Your task to perform on an android device: Search for the best fantasy books on Goodreads. Image 0: 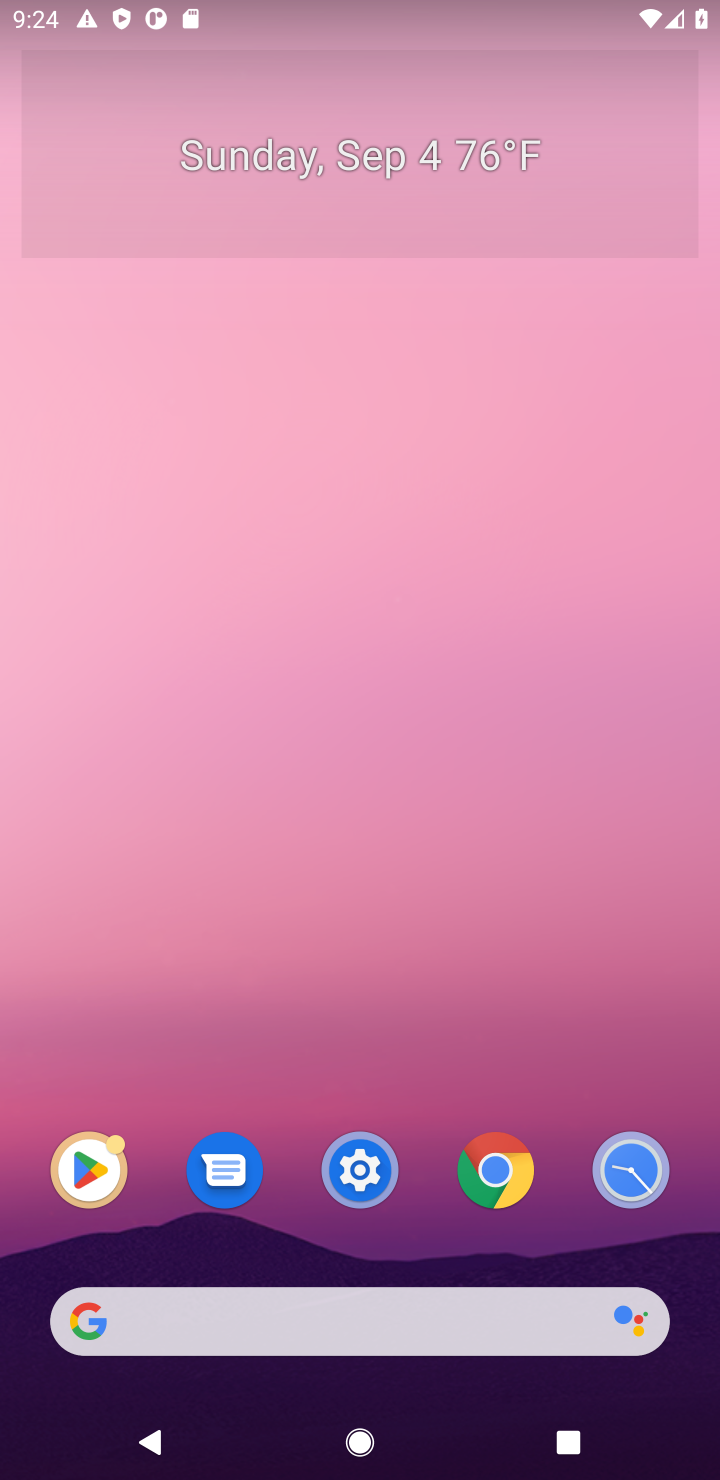
Step 0: click (261, 1326)
Your task to perform on an android device: Search for the best fantasy books on Goodreads. Image 1: 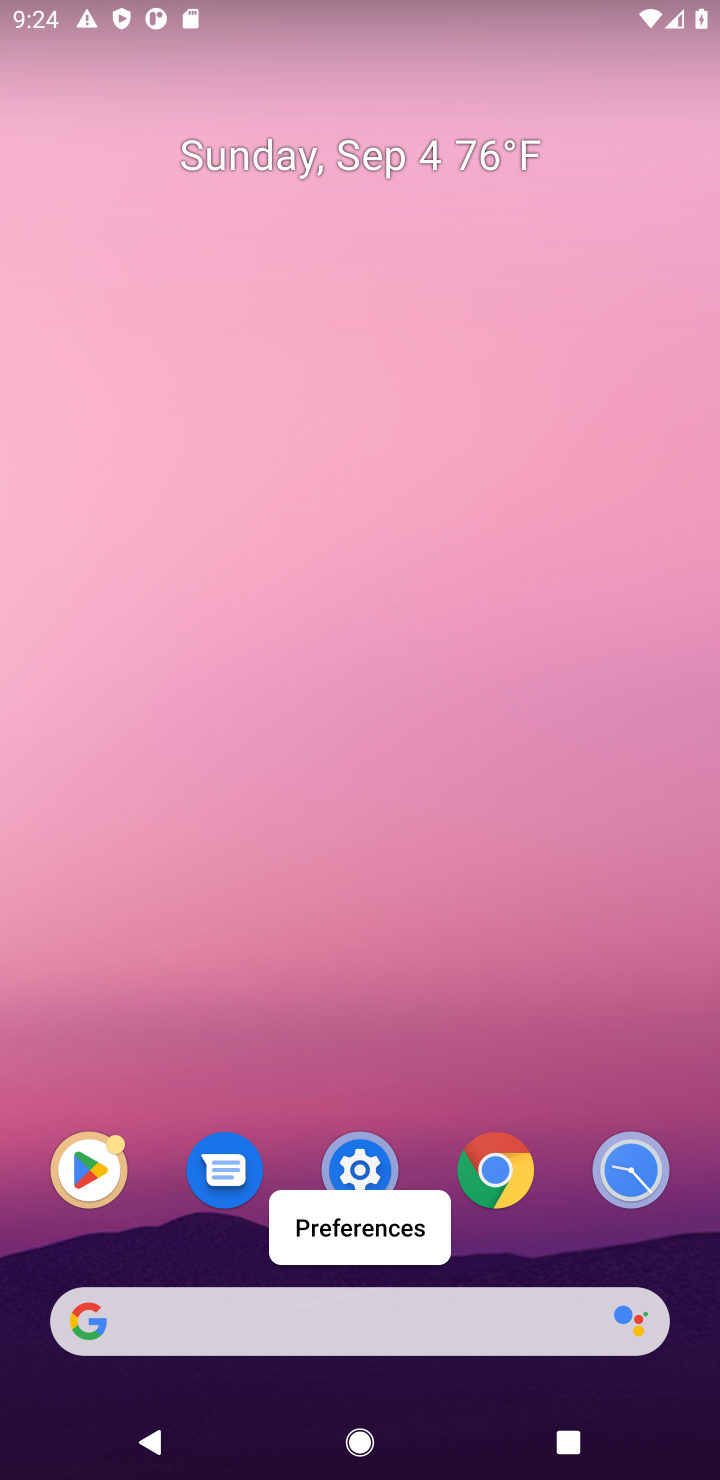
Step 1: click (261, 1326)
Your task to perform on an android device: Search for the best fantasy books on Goodreads. Image 2: 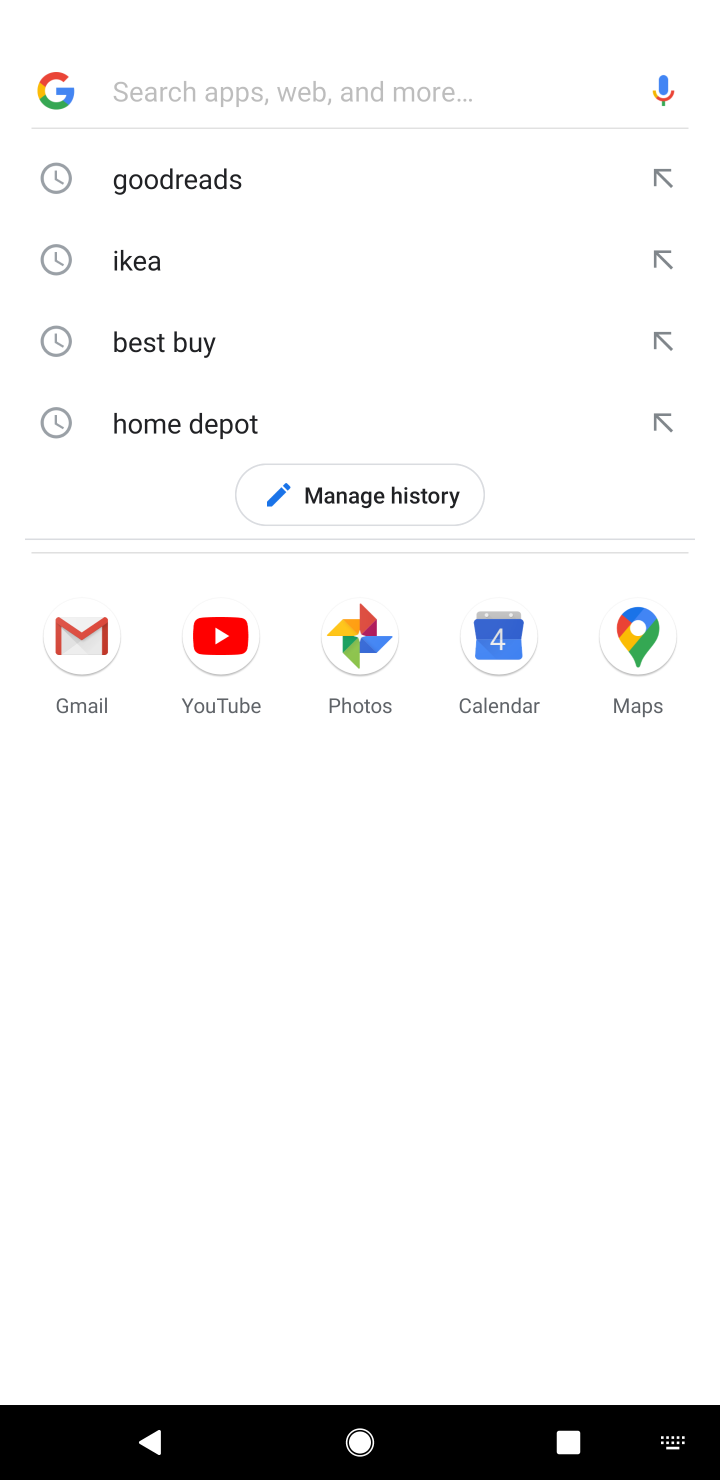
Step 2: click (206, 190)
Your task to perform on an android device: Search for the best fantasy books on Goodreads. Image 3: 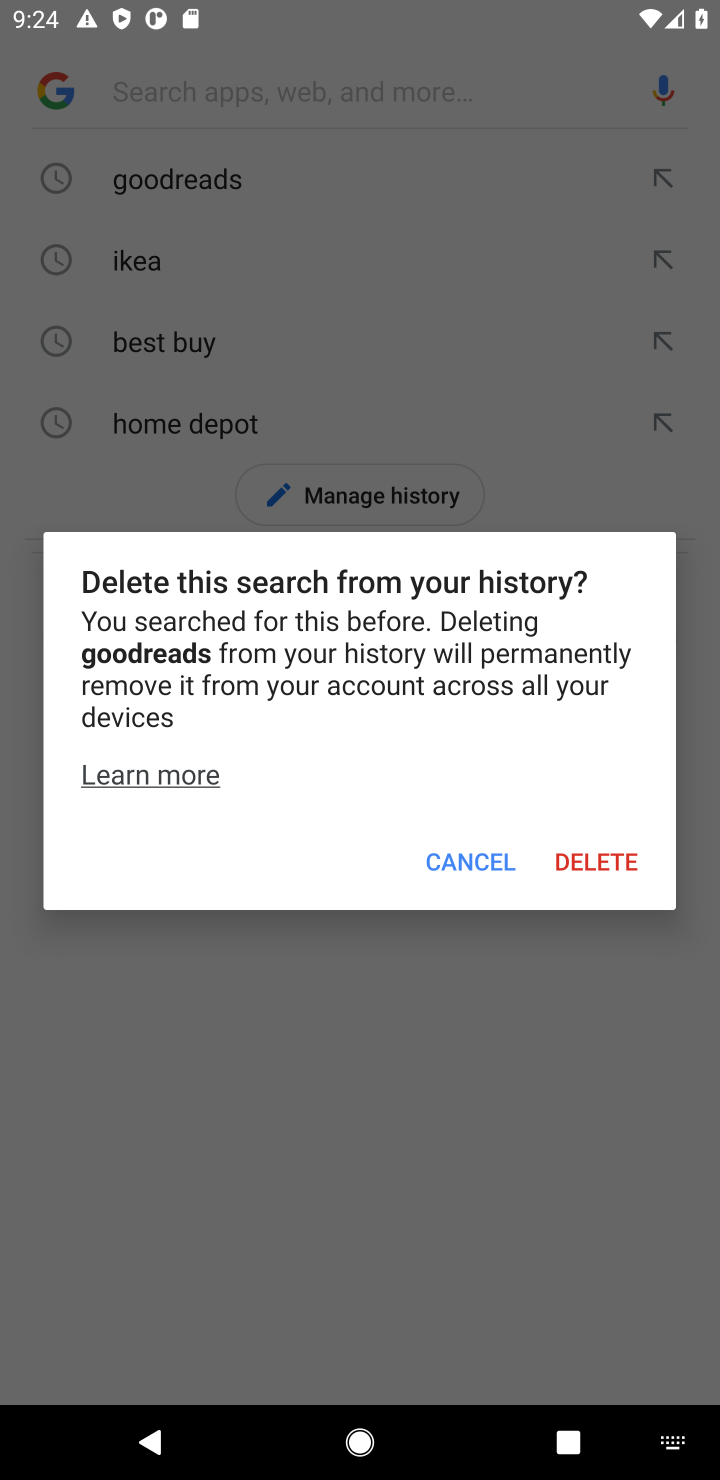
Step 3: click (266, 146)
Your task to perform on an android device: Search for the best fantasy books on Goodreads. Image 4: 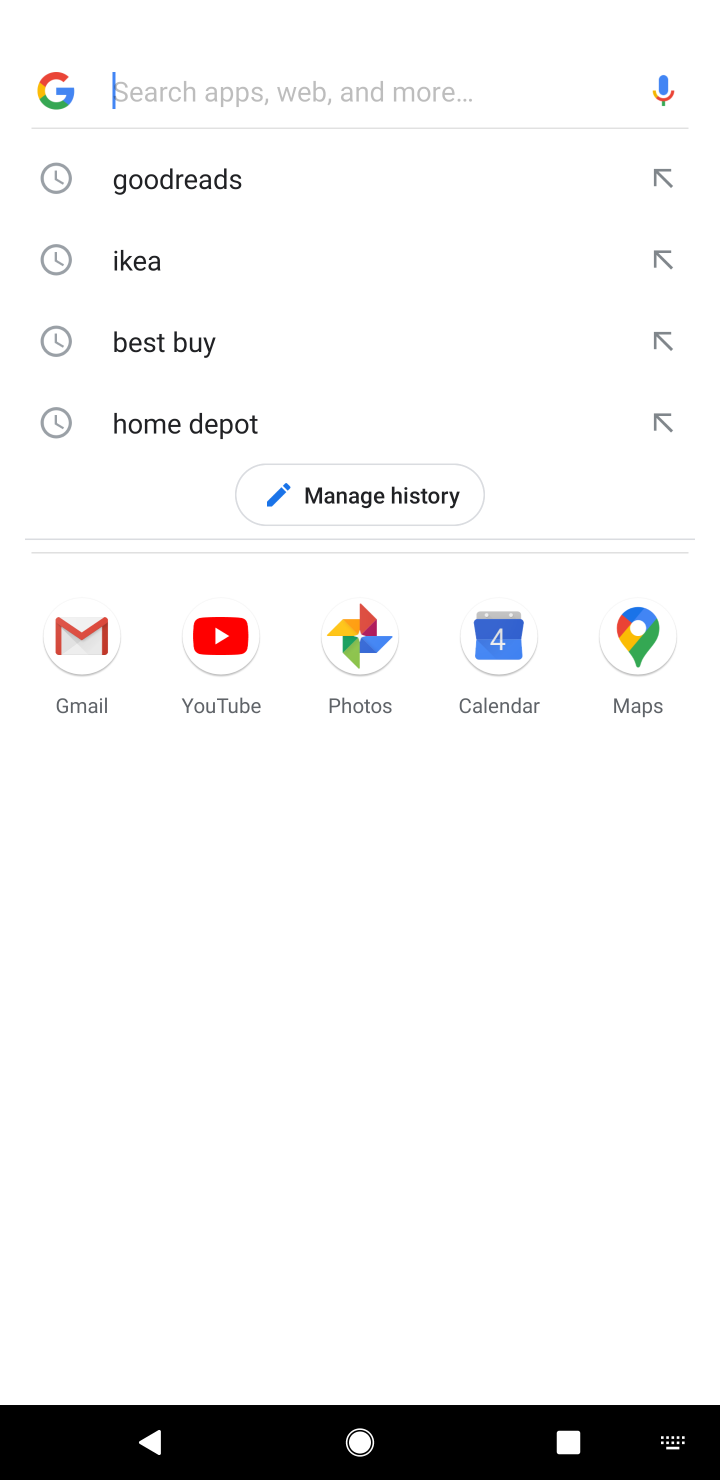
Step 4: click (259, 175)
Your task to perform on an android device: Search for the best fantasy books on Goodreads. Image 5: 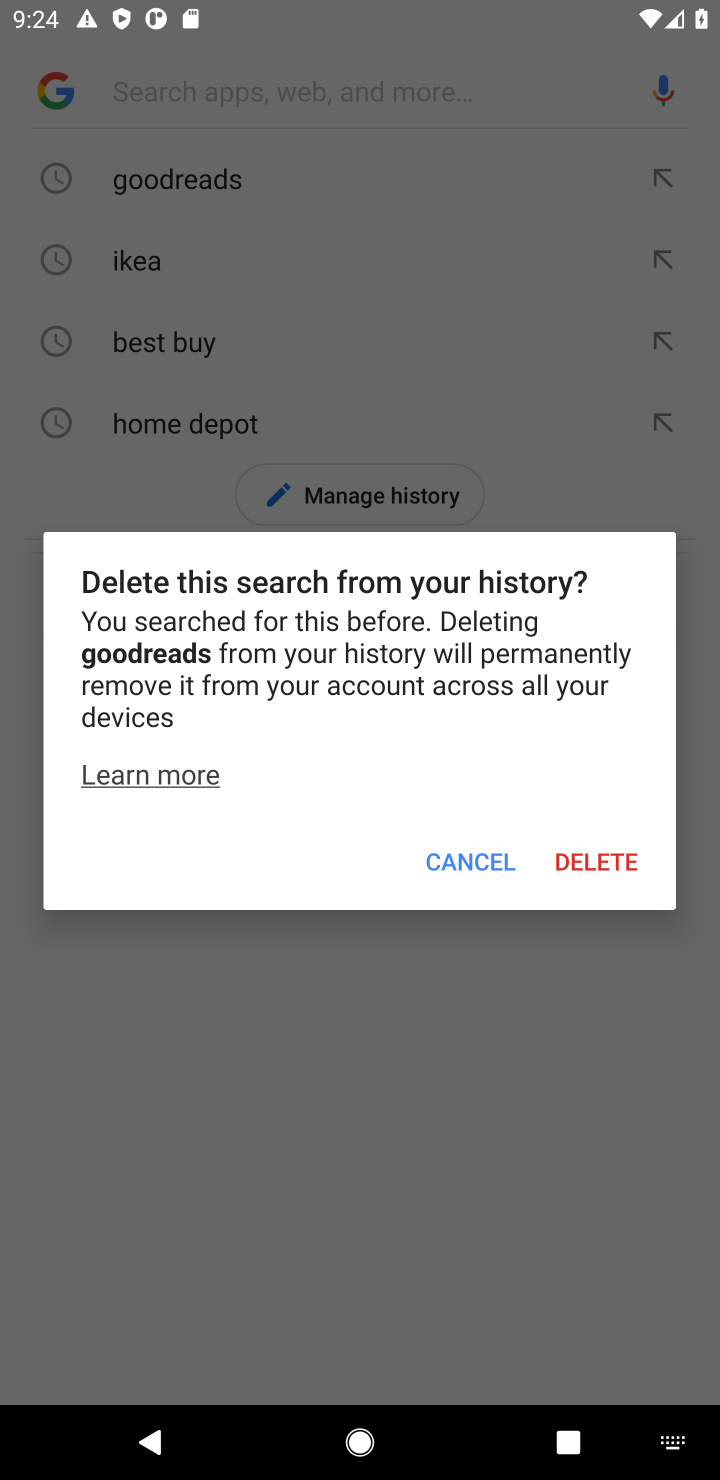
Step 5: click (432, 861)
Your task to perform on an android device: Search for the best fantasy books on Goodreads. Image 6: 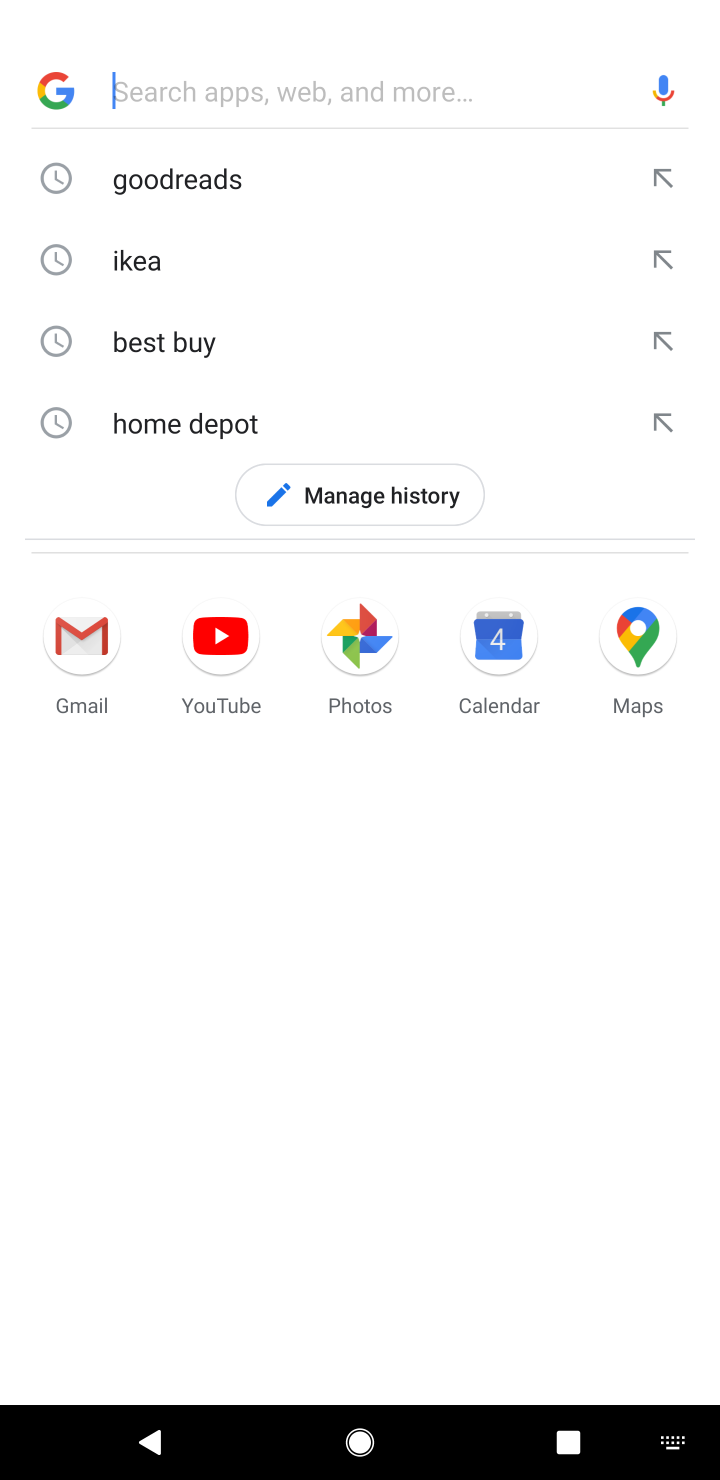
Step 6: click (193, 174)
Your task to perform on an android device: Search for the best fantasy books on Goodreads. Image 7: 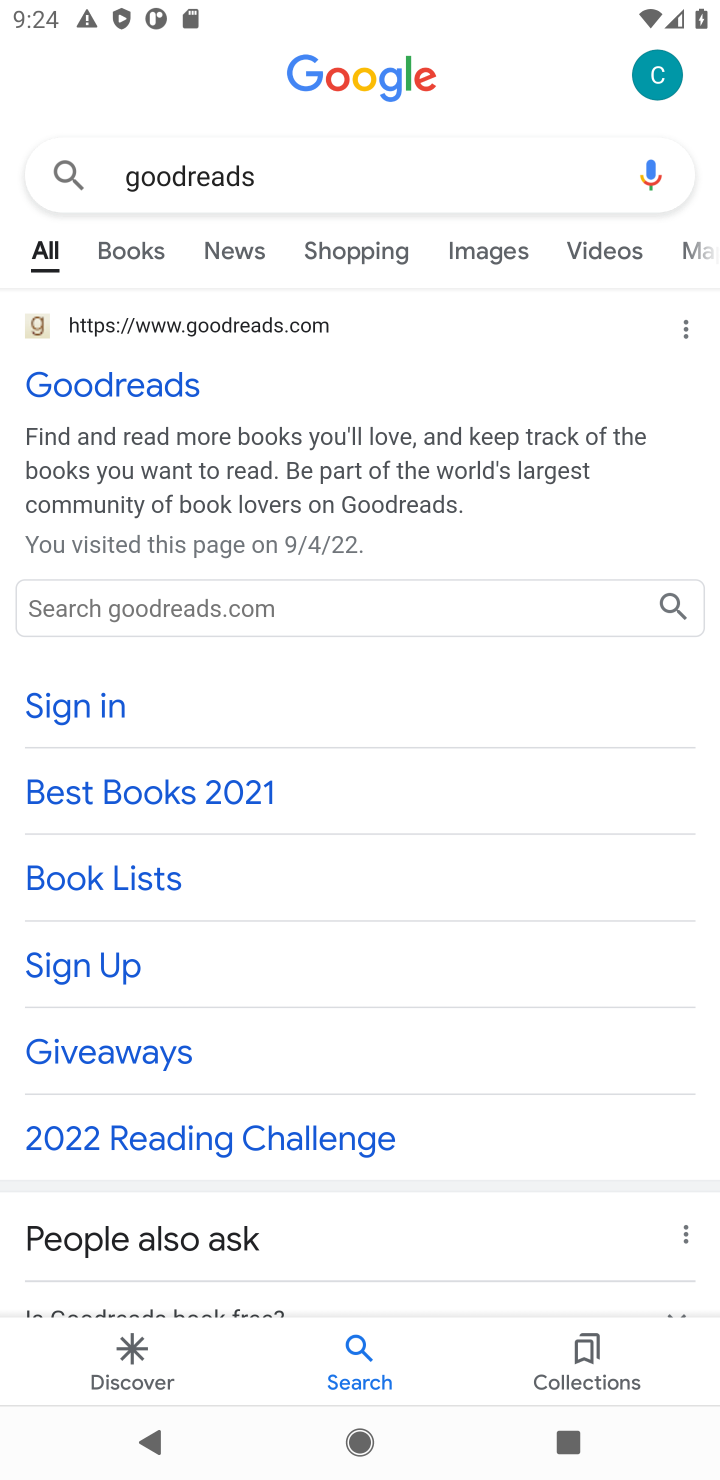
Step 7: click (182, 400)
Your task to perform on an android device: Search for the best fantasy books on Goodreads. Image 8: 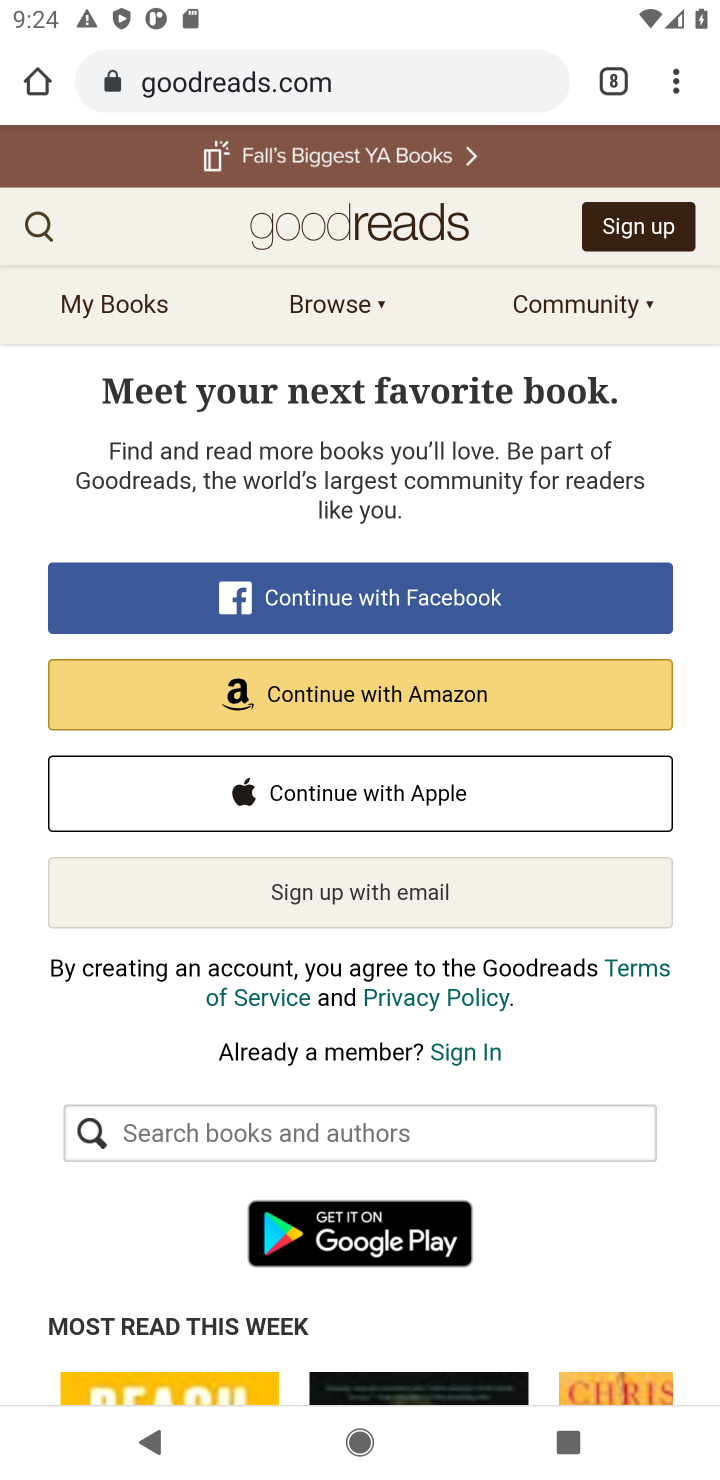
Step 8: click (26, 202)
Your task to perform on an android device: Search for the best fantasy books on Goodreads. Image 9: 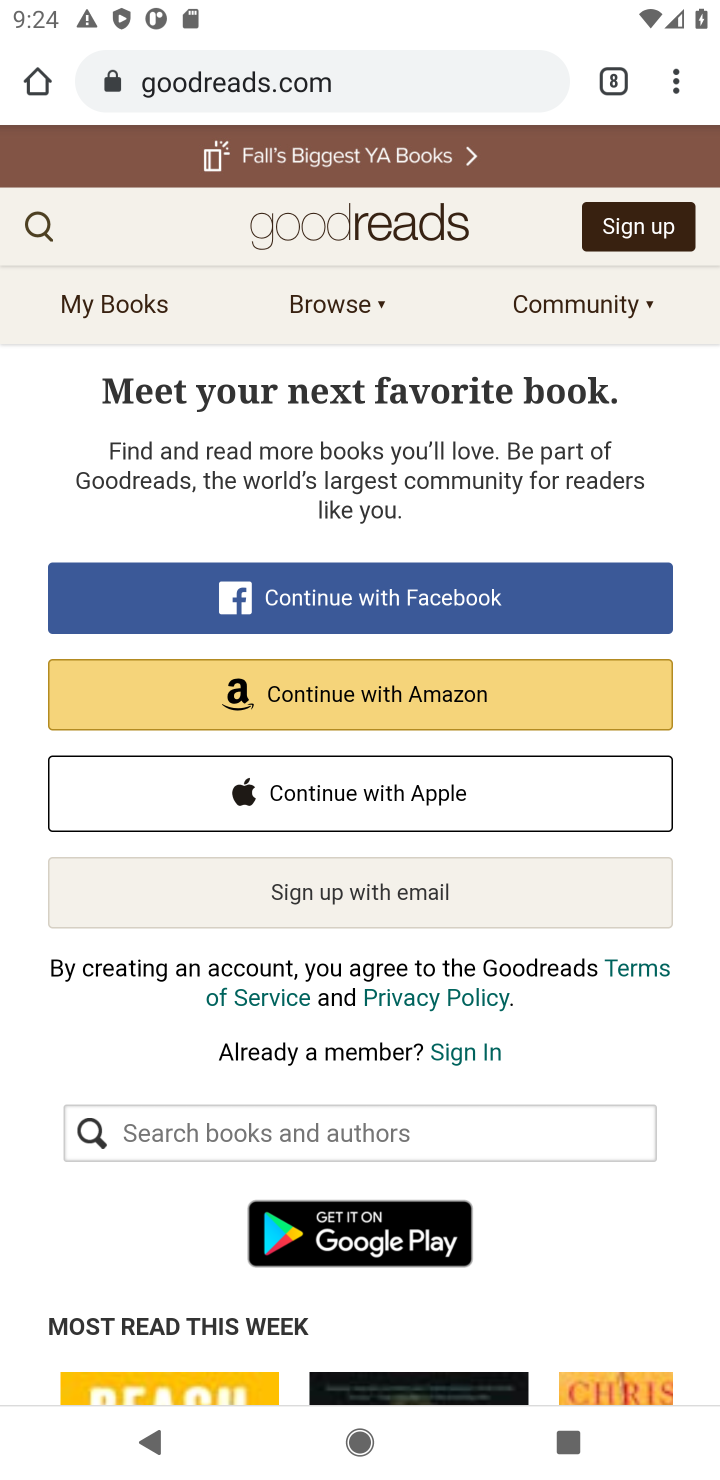
Step 9: click (52, 227)
Your task to perform on an android device: Search for the best fantasy books on Goodreads. Image 10: 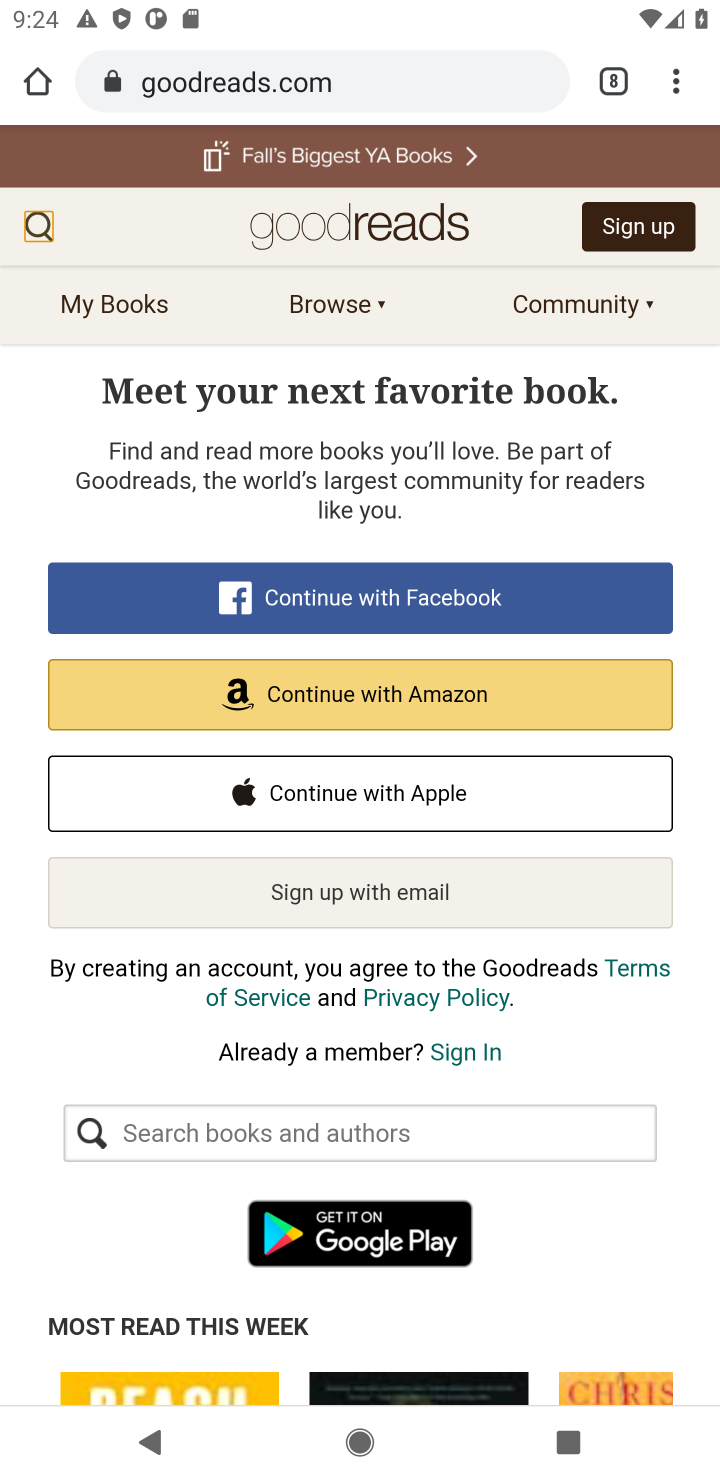
Step 10: click (52, 227)
Your task to perform on an android device: Search for the best fantasy books on Goodreads. Image 11: 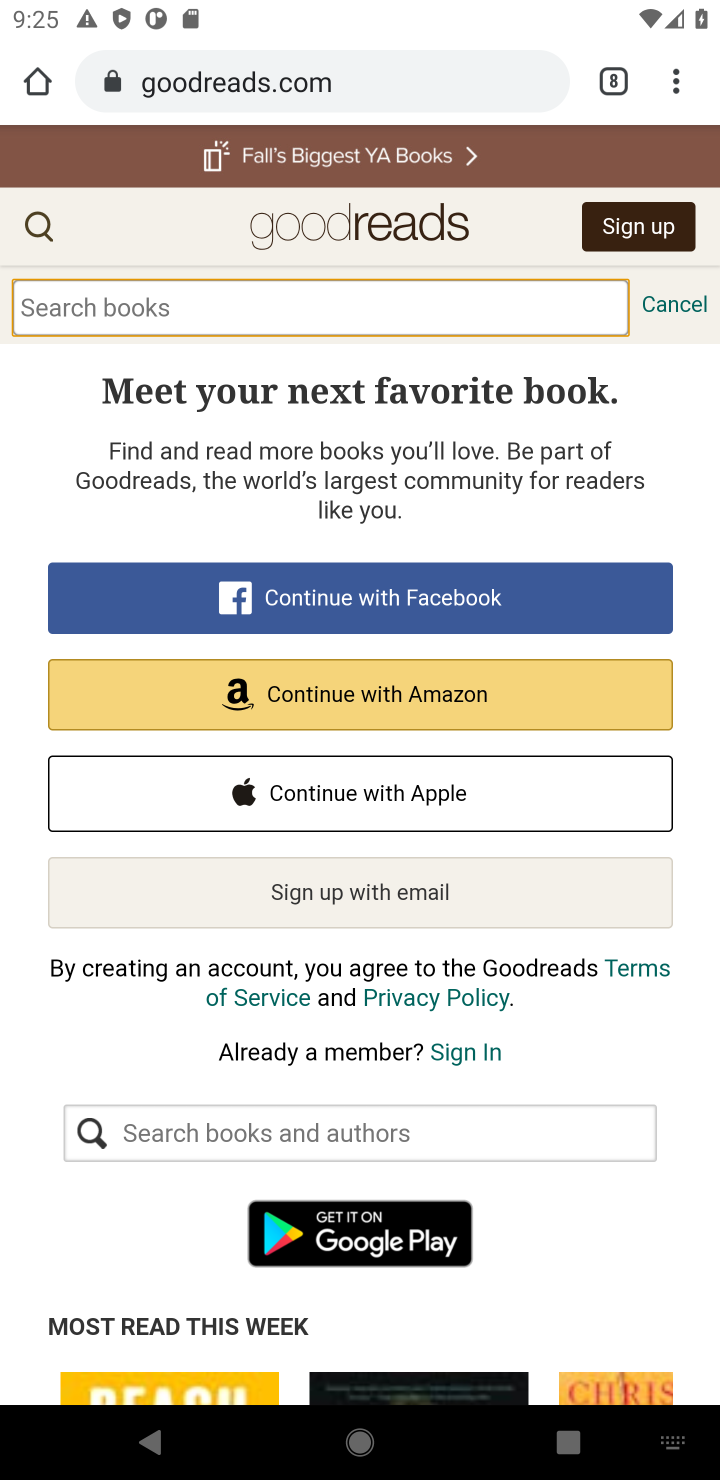
Step 11: type "fantasy books"
Your task to perform on an android device: Search for the best fantasy books on Goodreads. Image 12: 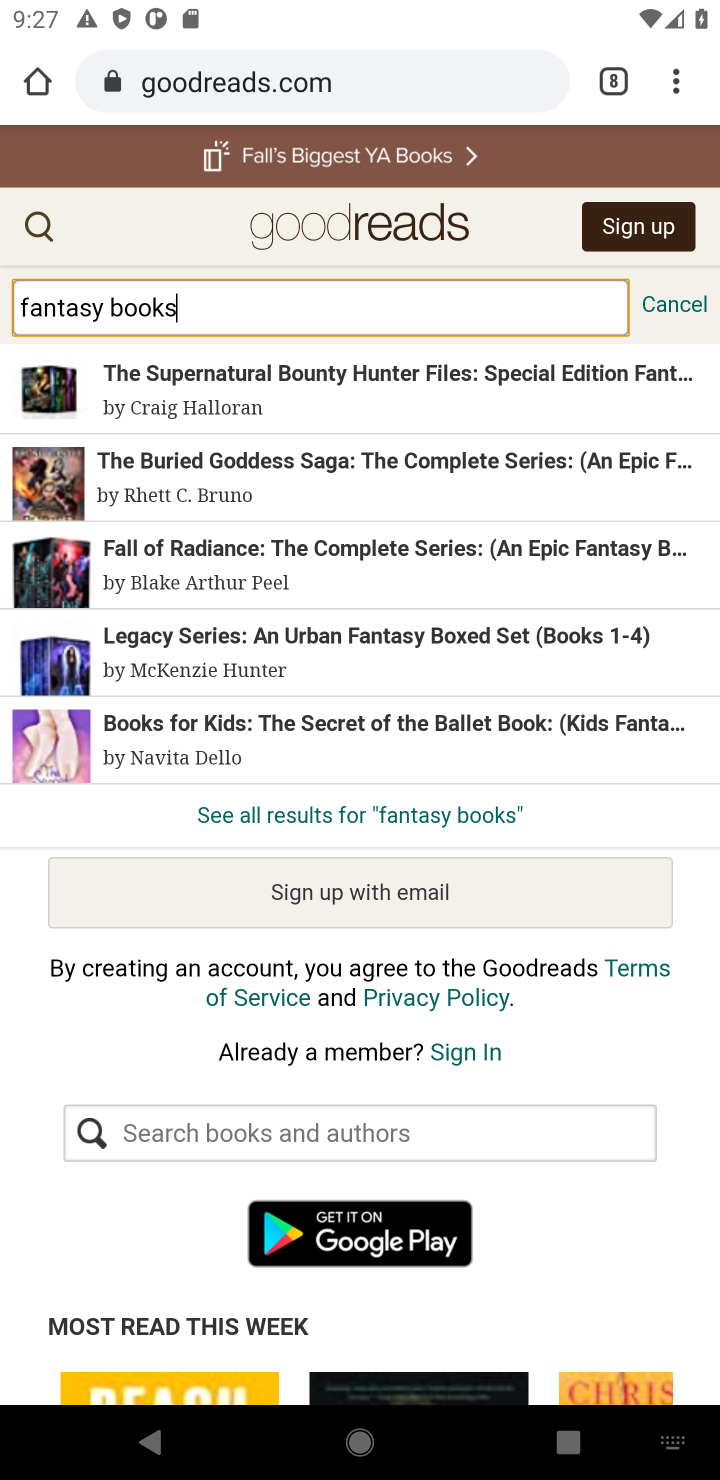
Step 12: task complete